Your task to perform on an android device: open sync settings in chrome Image 0: 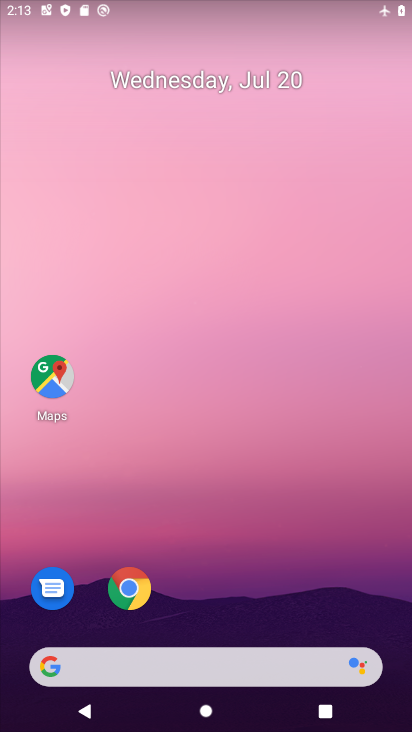
Step 0: drag from (235, 526) to (199, 32)
Your task to perform on an android device: open sync settings in chrome Image 1: 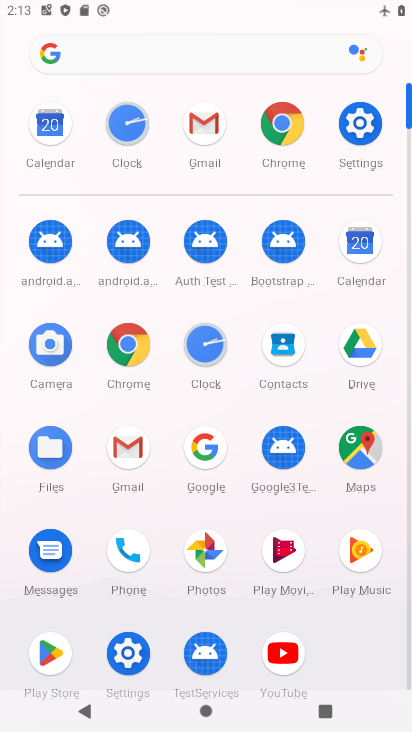
Step 1: click (295, 123)
Your task to perform on an android device: open sync settings in chrome Image 2: 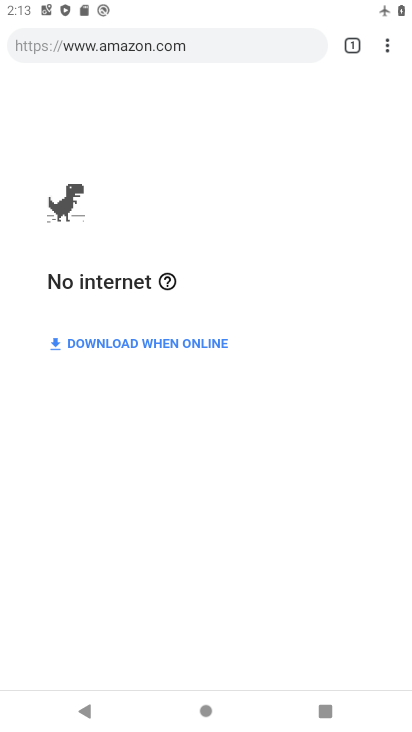
Step 2: drag from (384, 46) to (227, 509)
Your task to perform on an android device: open sync settings in chrome Image 3: 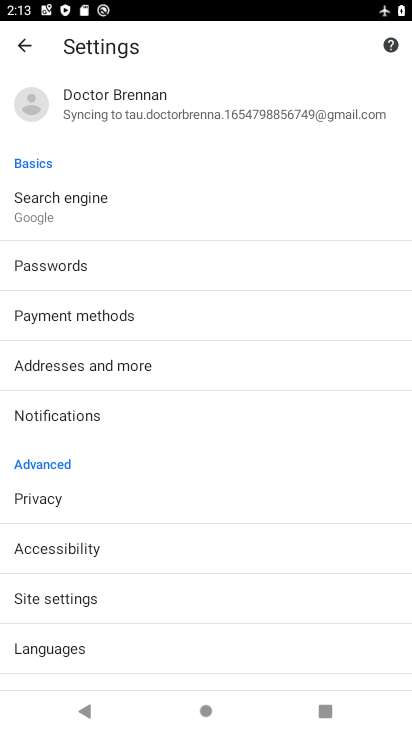
Step 3: drag from (136, 625) to (203, 140)
Your task to perform on an android device: open sync settings in chrome Image 4: 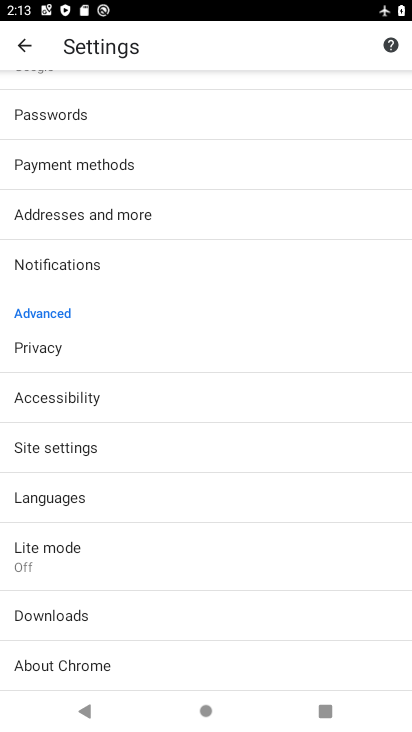
Step 4: click (79, 456)
Your task to perform on an android device: open sync settings in chrome Image 5: 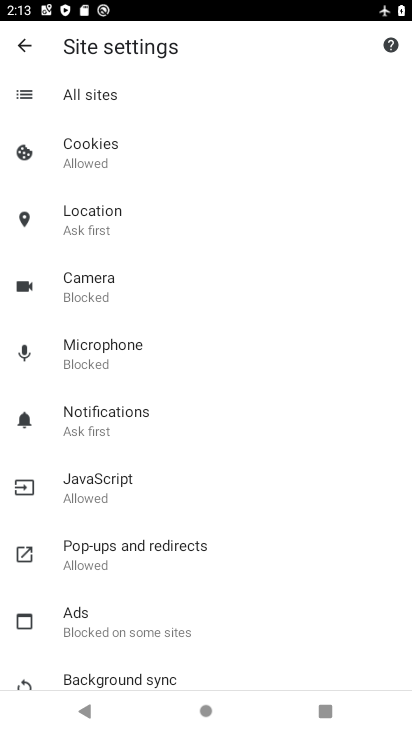
Step 5: drag from (120, 590) to (150, 322)
Your task to perform on an android device: open sync settings in chrome Image 6: 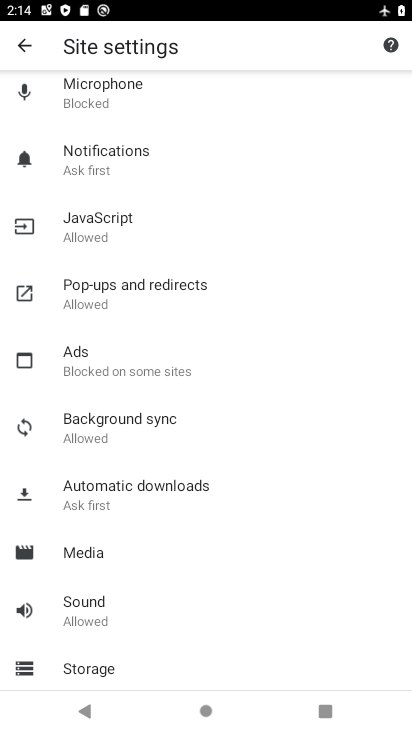
Step 6: click (121, 433)
Your task to perform on an android device: open sync settings in chrome Image 7: 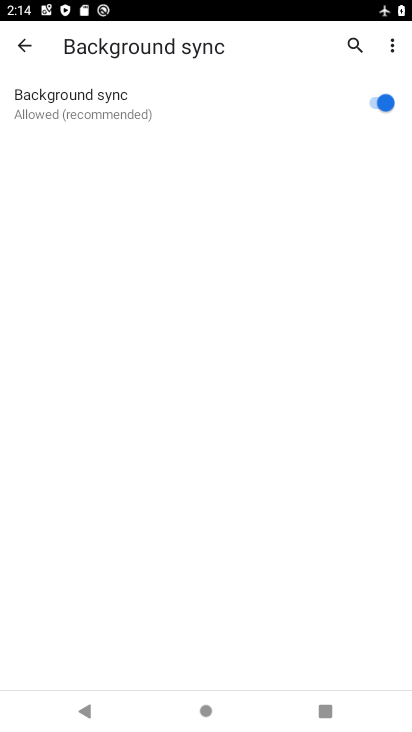
Step 7: task complete